Your task to perform on an android device: change the clock display to digital Image 0: 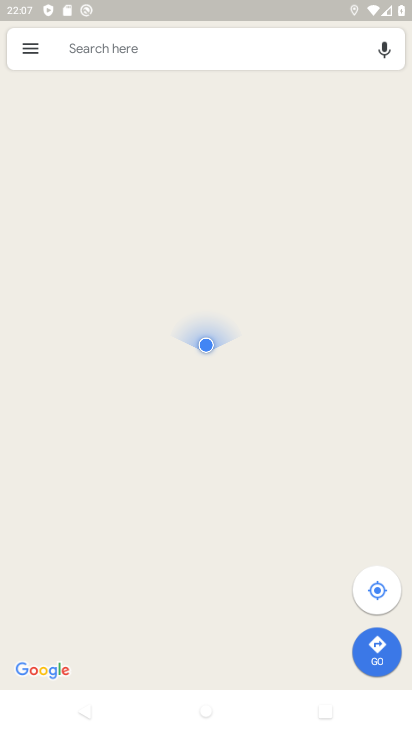
Step 0: press home button
Your task to perform on an android device: change the clock display to digital Image 1: 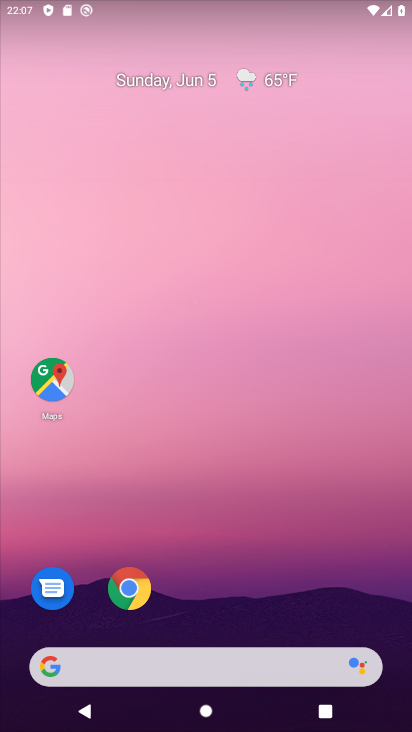
Step 1: drag from (190, 634) to (282, 177)
Your task to perform on an android device: change the clock display to digital Image 2: 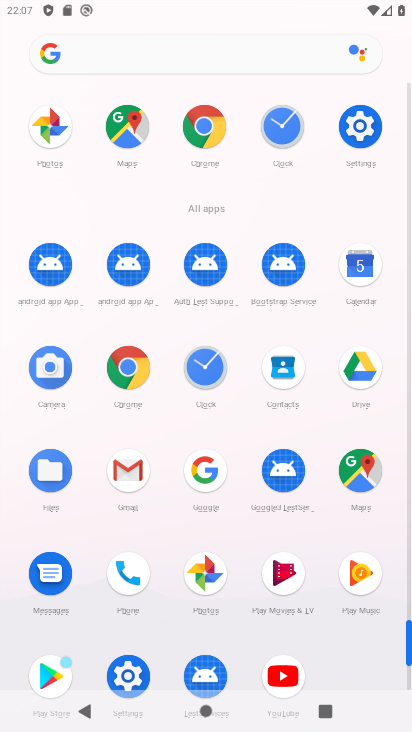
Step 2: click (210, 373)
Your task to perform on an android device: change the clock display to digital Image 3: 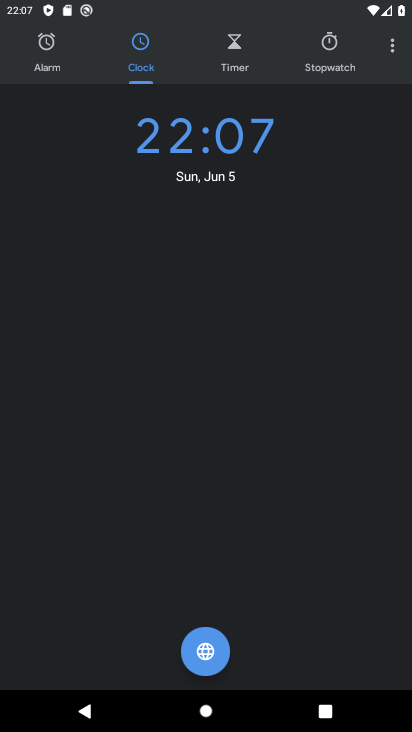
Step 3: click (394, 54)
Your task to perform on an android device: change the clock display to digital Image 4: 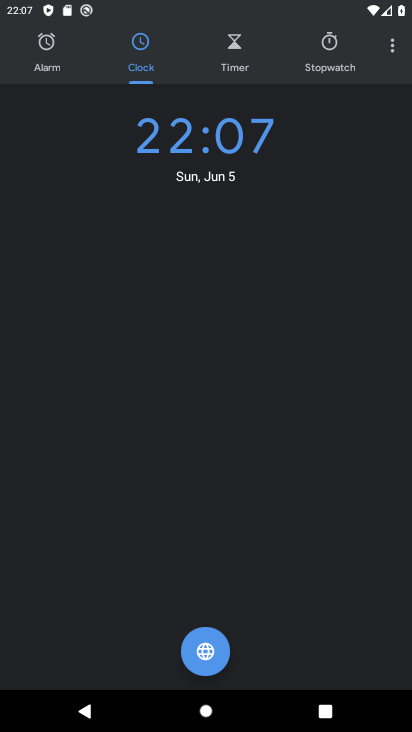
Step 4: click (394, 54)
Your task to perform on an android device: change the clock display to digital Image 5: 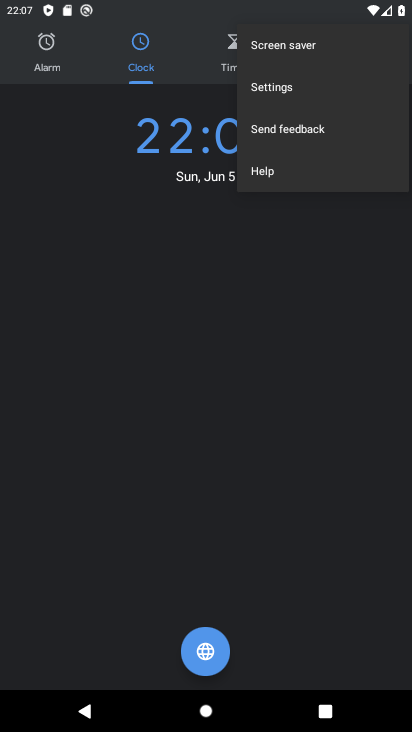
Step 5: click (343, 90)
Your task to perform on an android device: change the clock display to digital Image 6: 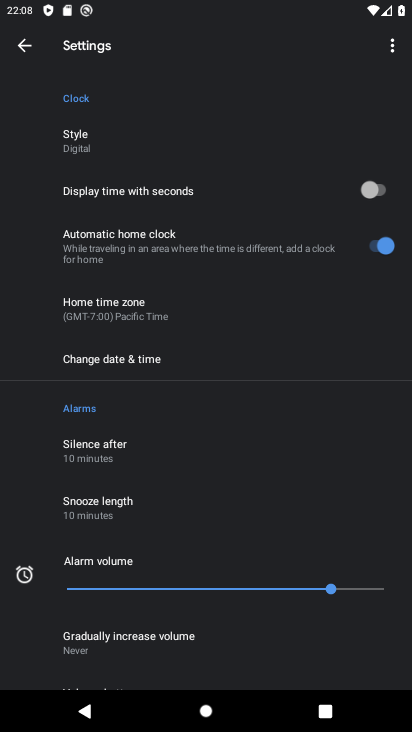
Step 6: task complete